Your task to perform on an android device: Go to internet settings Image 0: 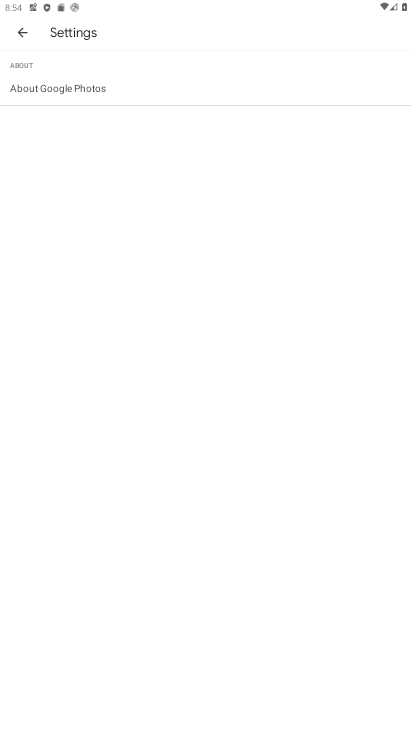
Step 0: press home button
Your task to perform on an android device: Go to internet settings Image 1: 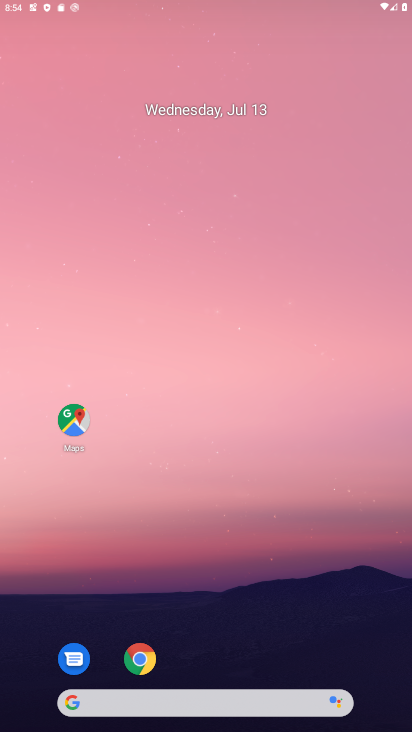
Step 1: drag from (247, 639) to (288, 105)
Your task to perform on an android device: Go to internet settings Image 2: 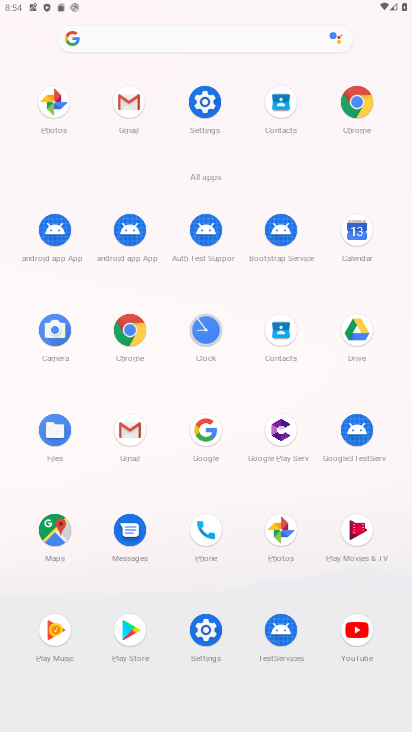
Step 2: click (206, 103)
Your task to perform on an android device: Go to internet settings Image 3: 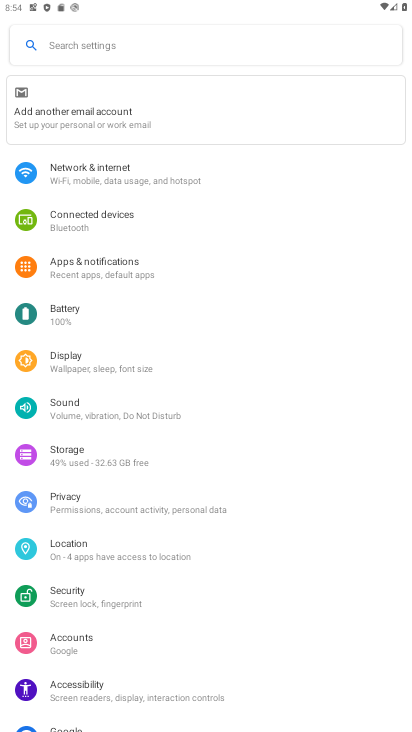
Step 3: click (82, 170)
Your task to perform on an android device: Go to internet settings Image 4: 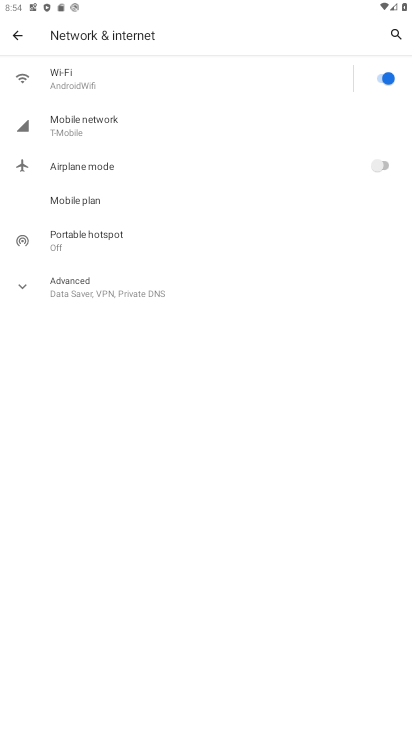
Step 4: click (84, 81)
Your task to perform on an android device: Go to internet settings Image 5: 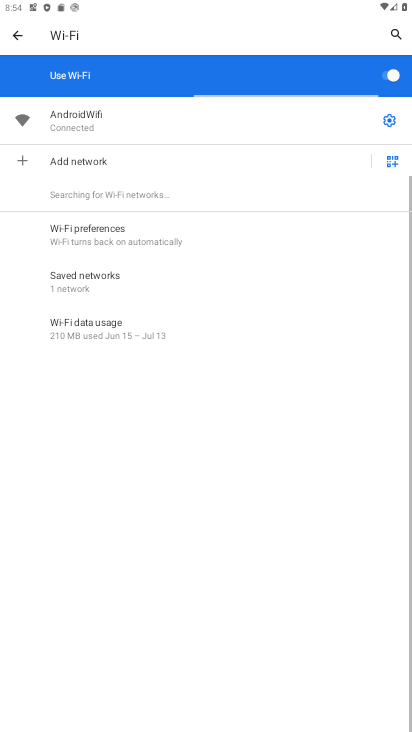
Step 5: click (224, 115)
Your task to perform on an android device: Go to internet settings Image 6: 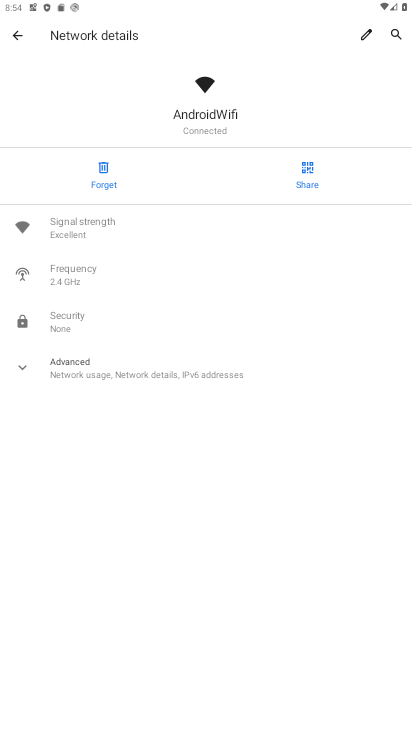
Step 6: task complete